Your task to perform on an android device: Open location settings Image 0: 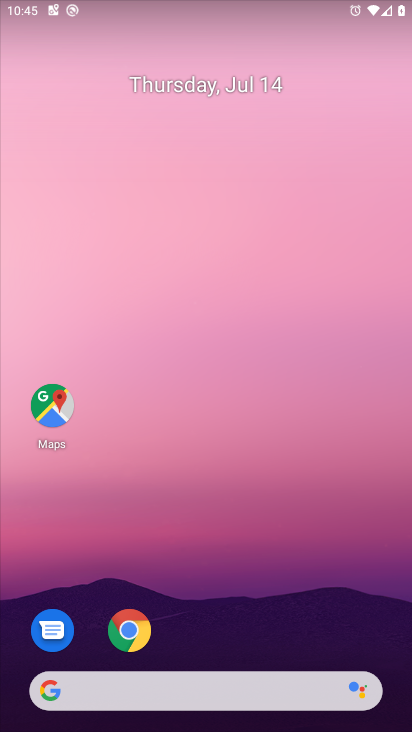
Step 0: drag from (16, 677) to (285, 138)
Your task to perform on an android device: Open location settings Image 1: 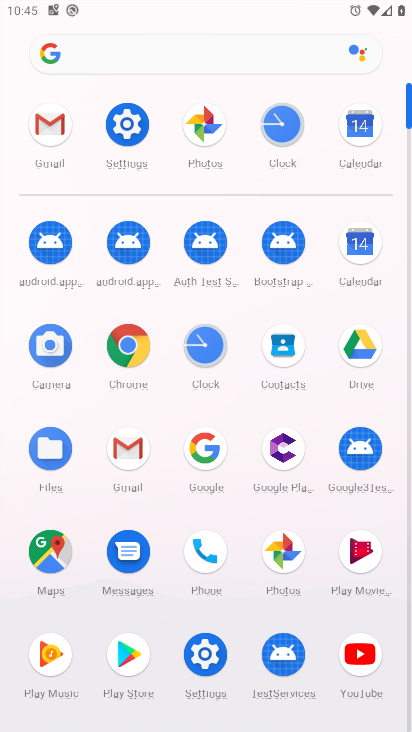
Step 1: click (189, 662)
Your task to perform on an android device: Open location settings Image 2: 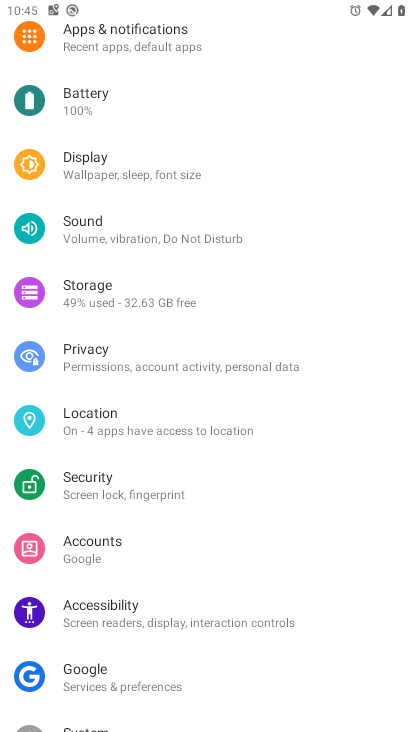
Step 2: click (123, 418)
Your task to perform on an android device: Open location settings Image 3: 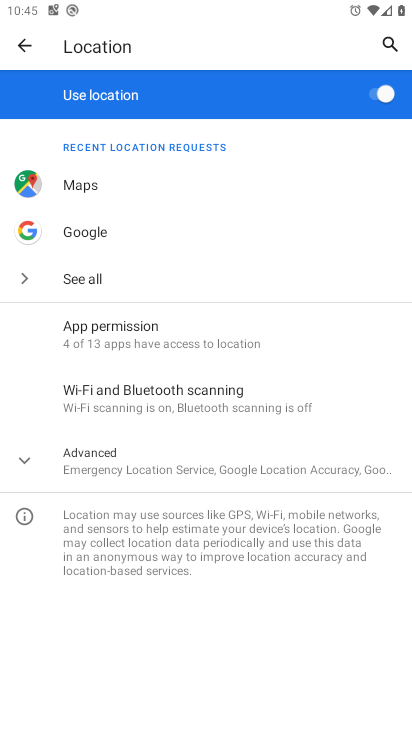
Step 3: click (125, 452)
Your task to perform on an android device: Open location settings Image 4: 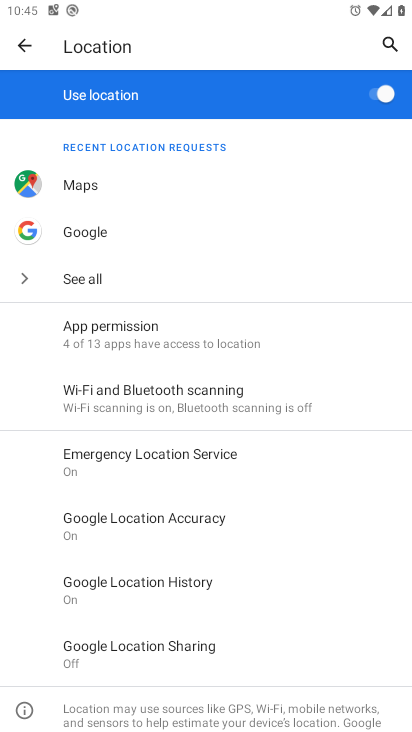
Step 4: task complete